Your task to perform on an android device: What's on my calendar tomorrow? Image 0: 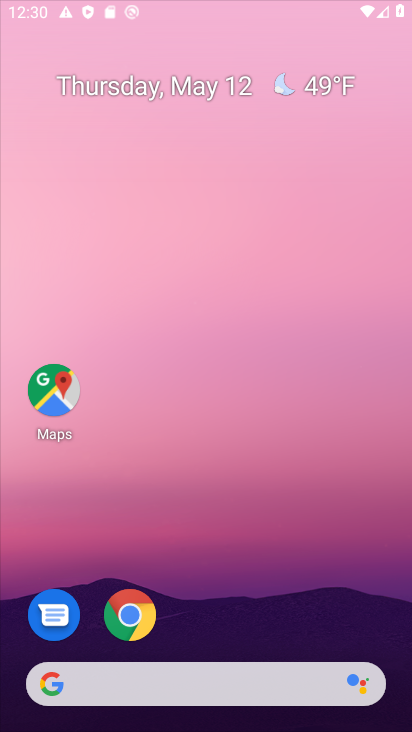
Step 0: click (182, 243)
Your task to perform on an android device: What's on my calendar tomorrow? Image 1: 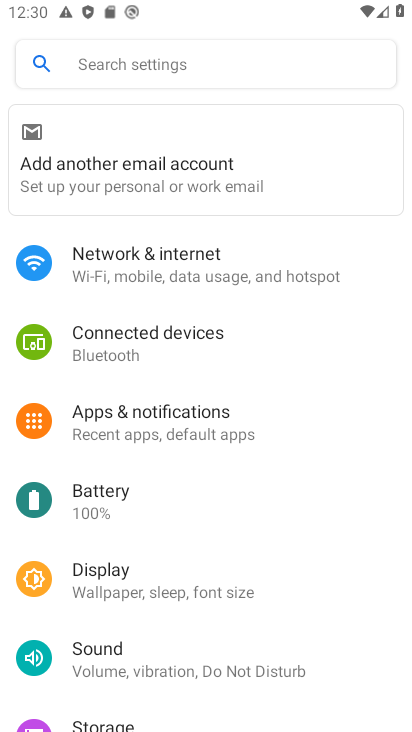
Step 1: press home button
Your task to perform on an android device: What's on my calendar tomorrow? Image 2: 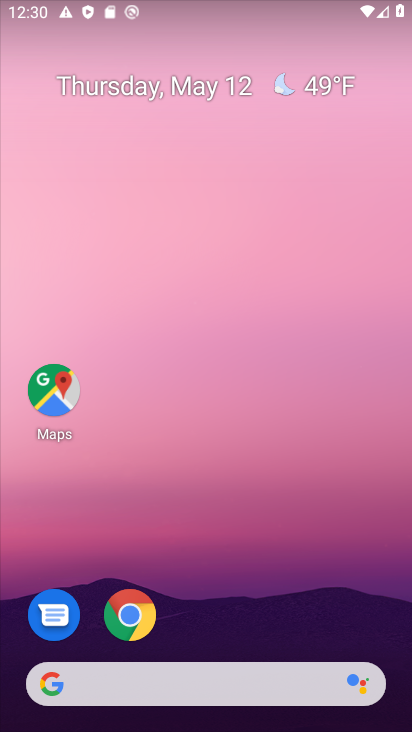
Step 2: drag from (269, 682) to (162, 178)
Your task to perform on an android device: What's on my calendar tomorrow? Image 3: 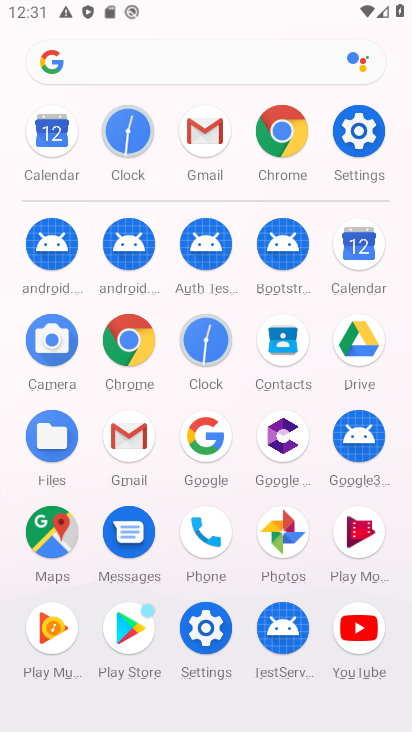
Step 3: click (53, 139)
Your task to perform on an android device: What's on my calendar tomorrow? Image 4: 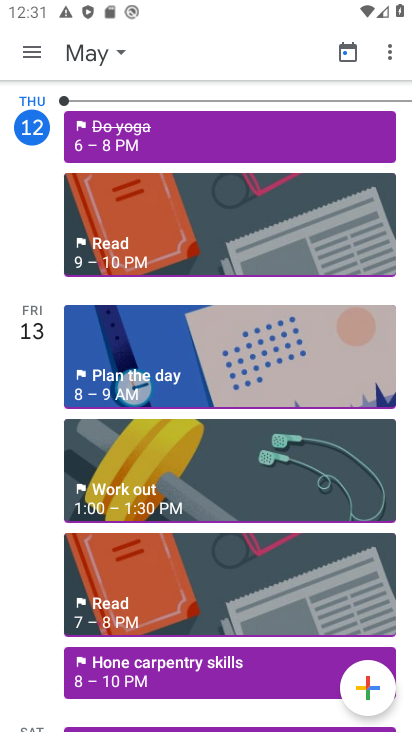
Step 4: task complete